Your task to perform on an android device: change the clock display to show seconds Image 0: 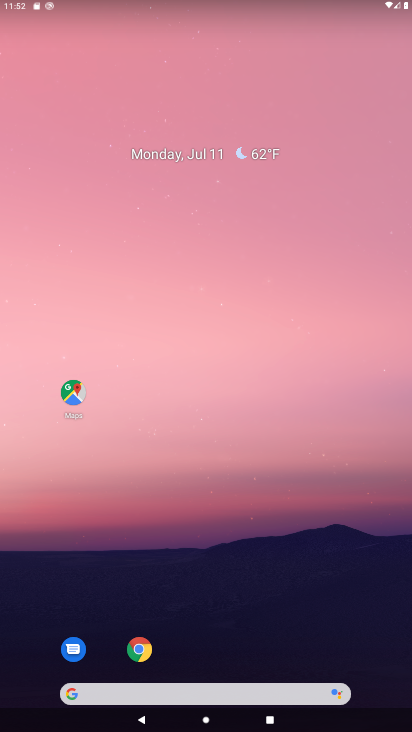
Step 0: drag from (232, 603) to (183, 94)
Your task to perform on an android device: change the clock display to show seconds Image 1: 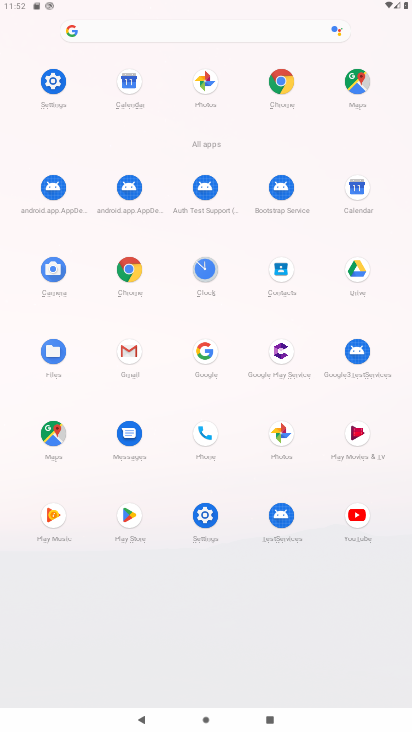
Step 1: click (210, 263)
Your task to perform on an android device: change the clock display to show seconds Image 2: 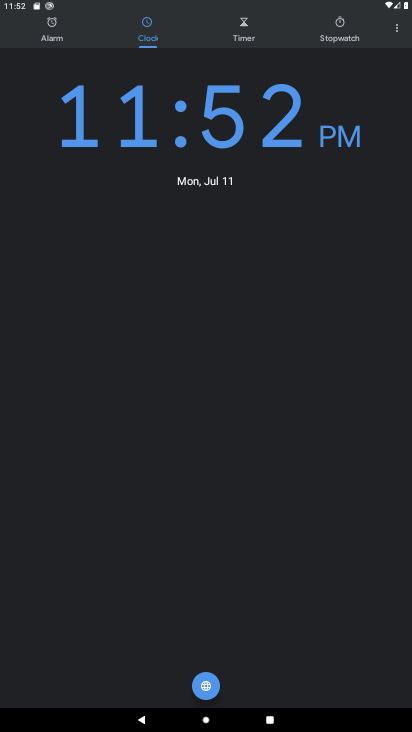
Step 2: click (396, 27)
Your task to perform on an android device: change the clock display to show seconds Image 3: 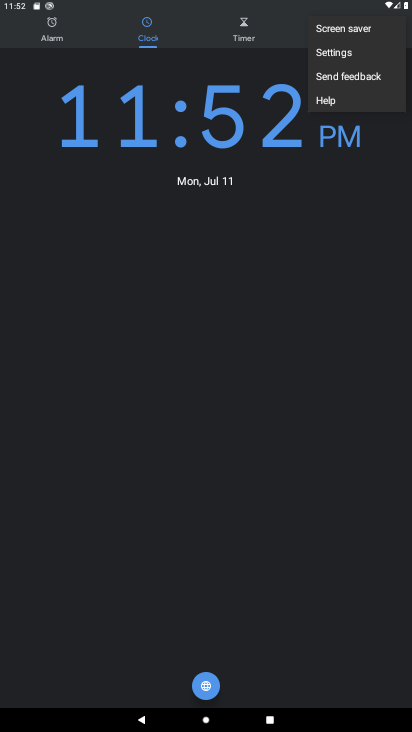
Step 3: click (346, 50)
Your task to perform on an android device: change the clock display to show seconds Image 4: 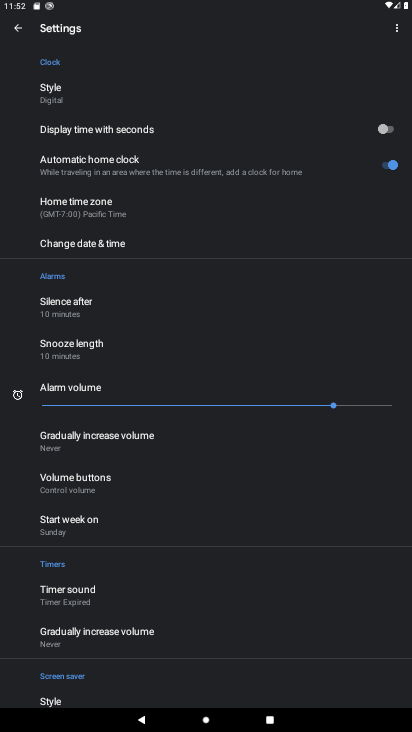
Step 4: click (385, 130)
Your task to perform on an android device: change the clock display to show seconds Image 5: 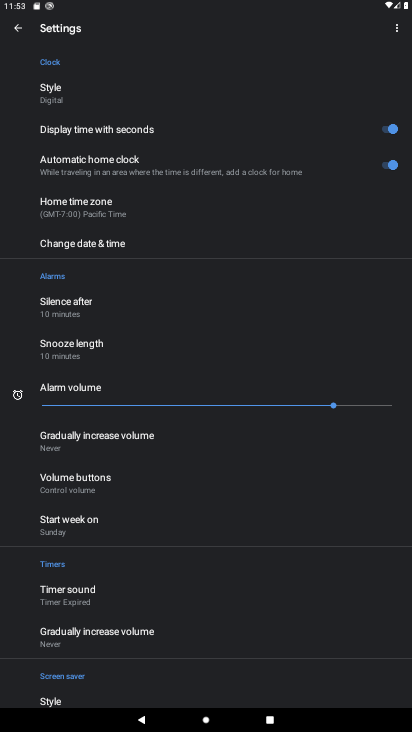
Step 5: task complete